Your task to perform on an android device: empty trash in the gmail app Image 0: 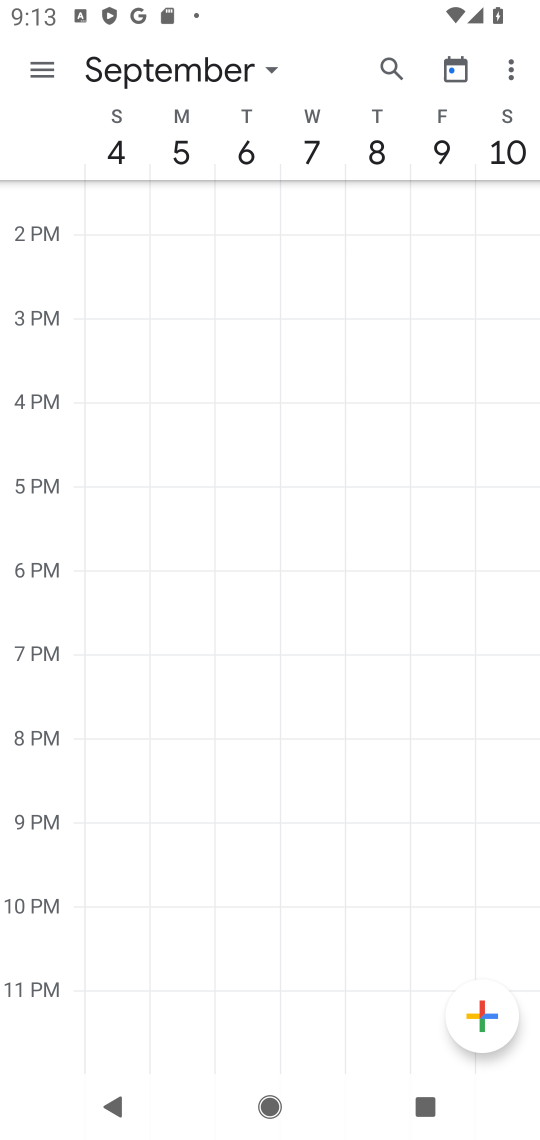
Step 0: press home button
Your task to perform on an android device: empty trash in the gmail app Image 1: 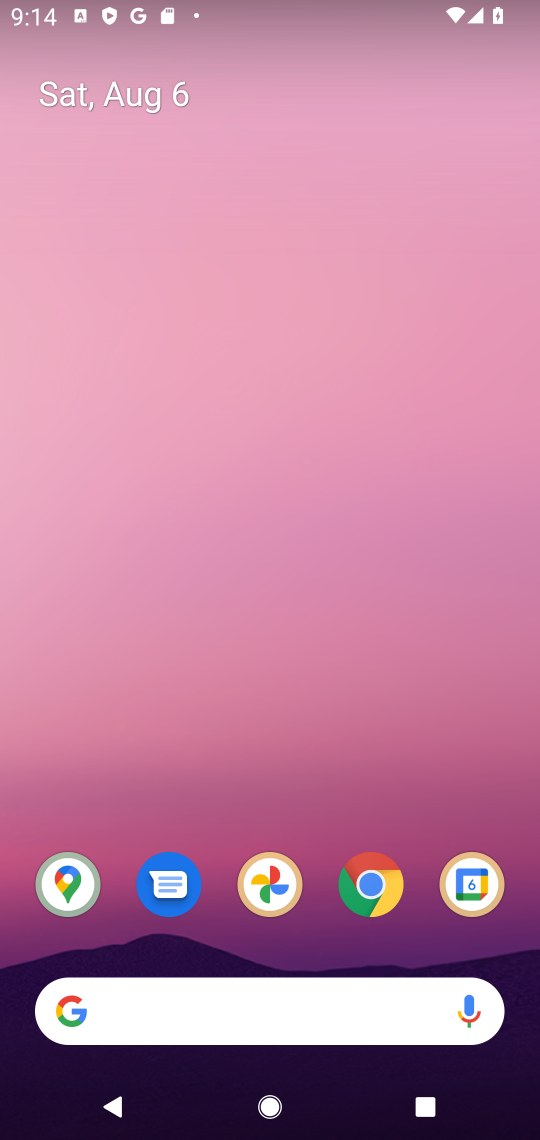
Step 1: drag from (415, 948) to (375, 194)
Your task to perform on an android device: empty trash in the gmail app Image 2: 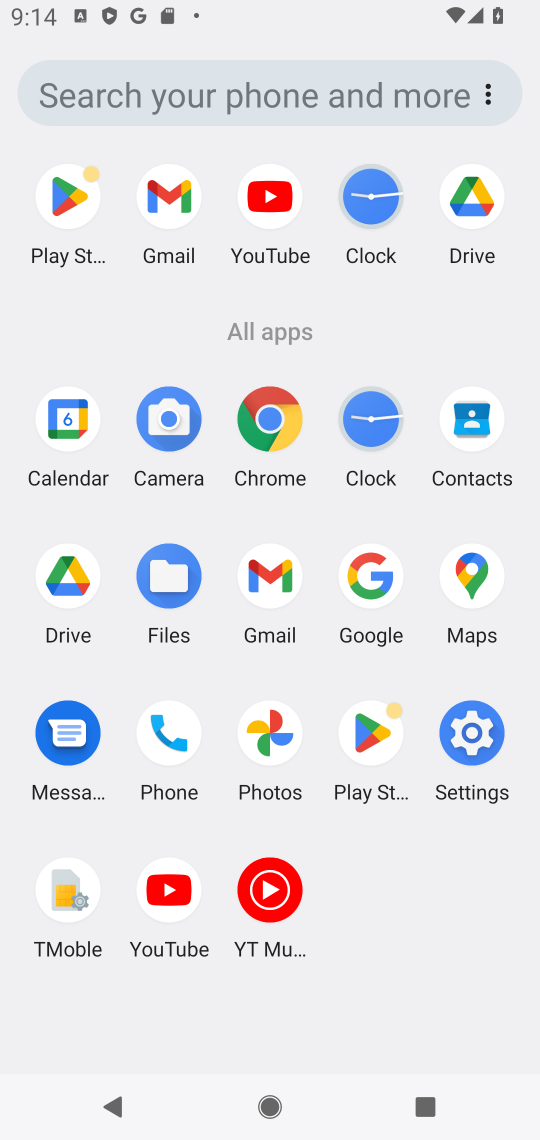
Step 2: click (270, 581)
Your task to perform on an android device: empty trash in the gmail app Image 3: 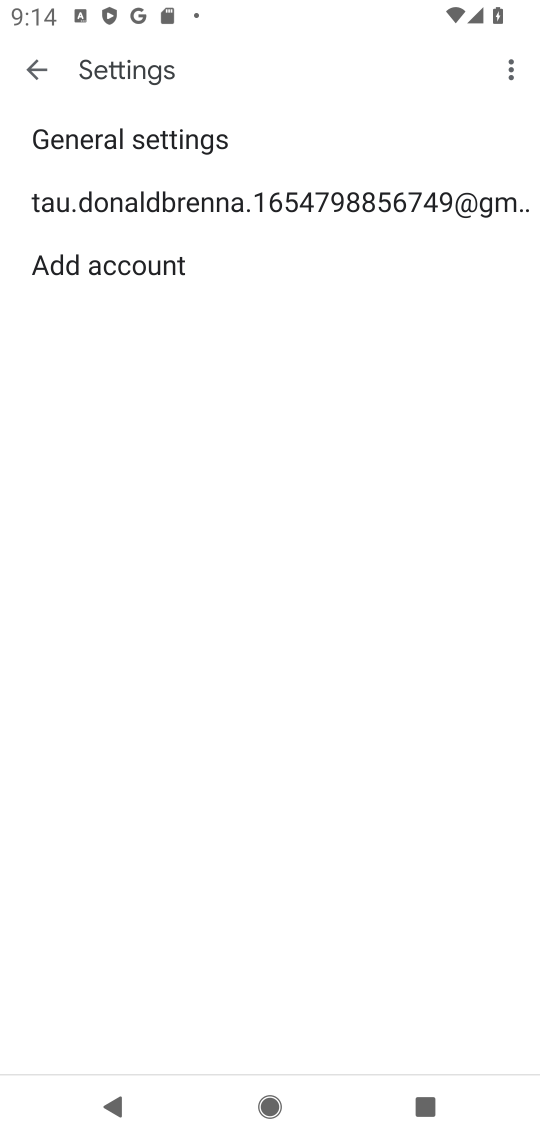
Step 3: press back button
Your task to perform on an android device: empty trash in the gmail app Image 4: 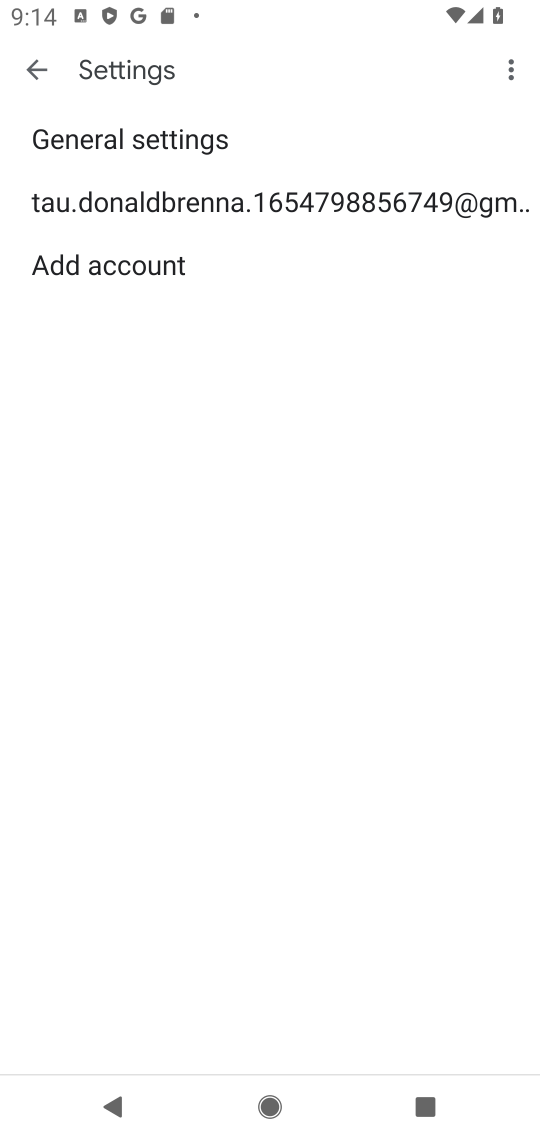
Step 4: press back button
Your task to perform on an android device: empty trash in the gmail app Image 5: 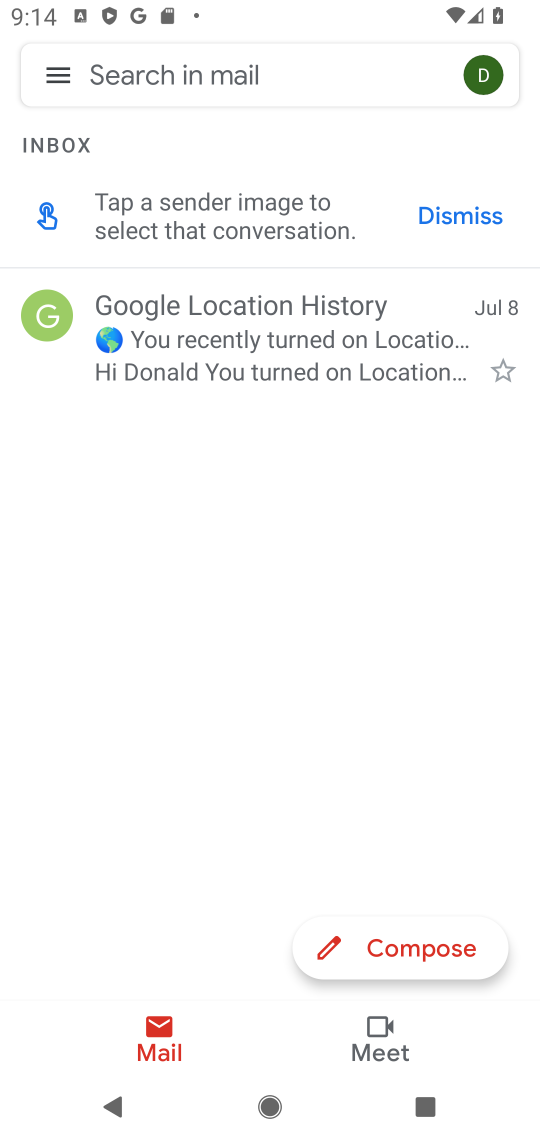
Step 5: click (54, 77)
Your task to perform on an android device: empty trash in the gmail app Image 6: 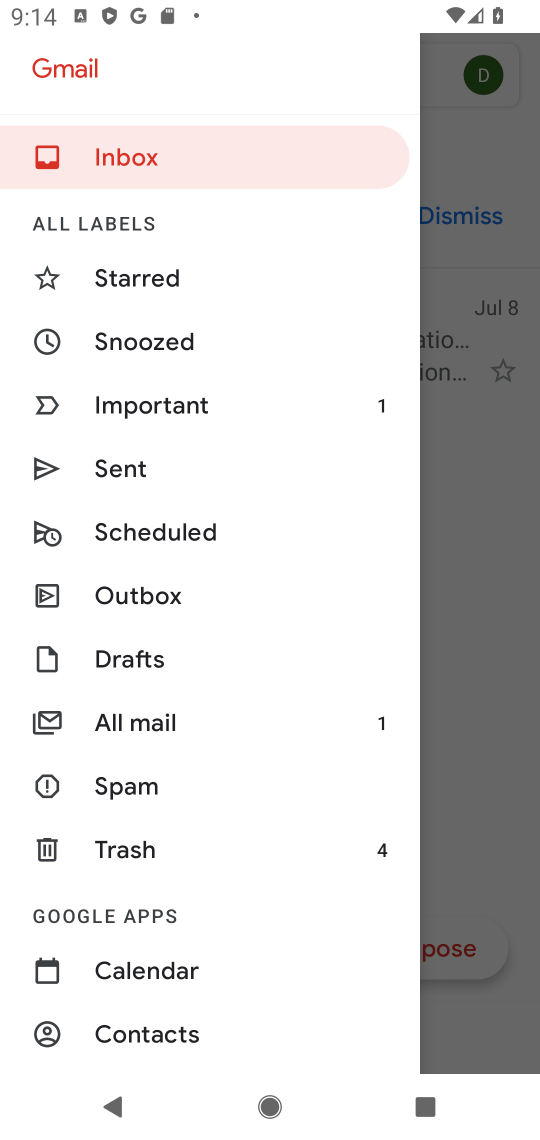
Step 6: click (130, 852)
Your task to perform on an android device: empty trash in the gmail app Image 7: 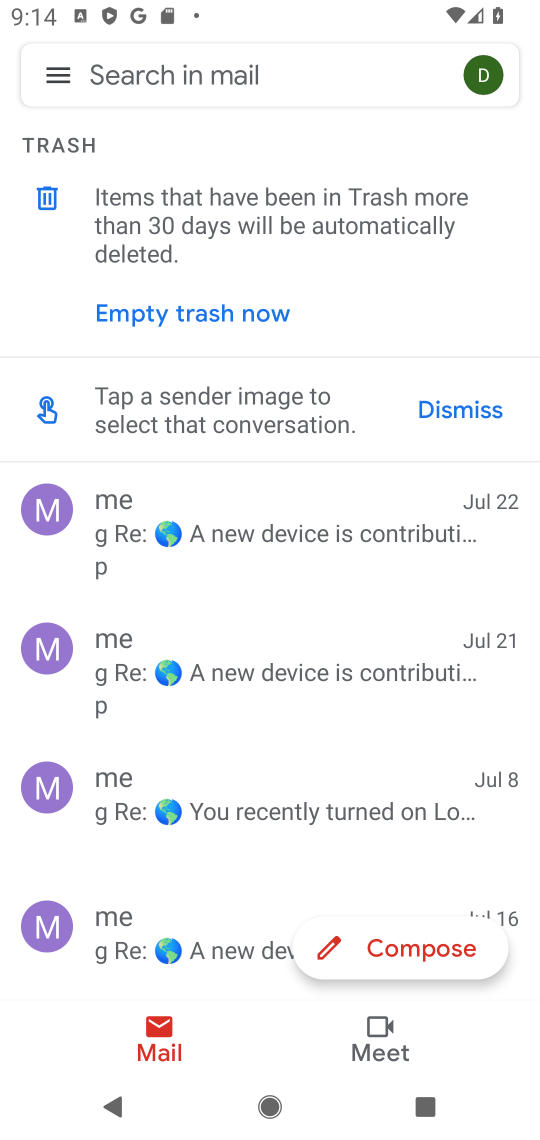
Step 7: click (171, 311)
Your task to perform on an android device: empty trash in the gmail app Image 8: 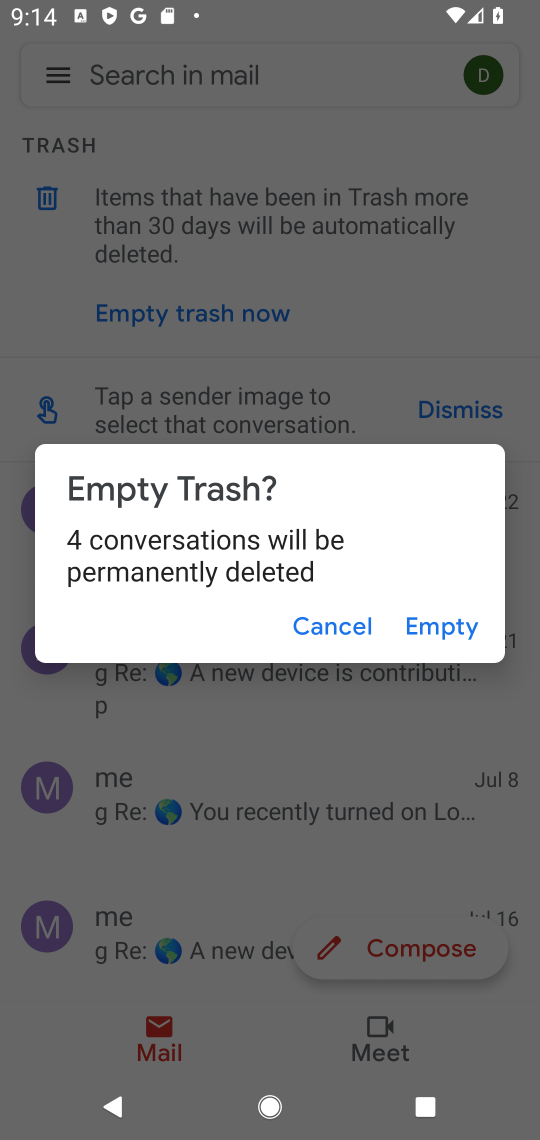
Step 8: click (437, 624)
Your task to perform on an android device: empty trash in the gmail app Image 9: 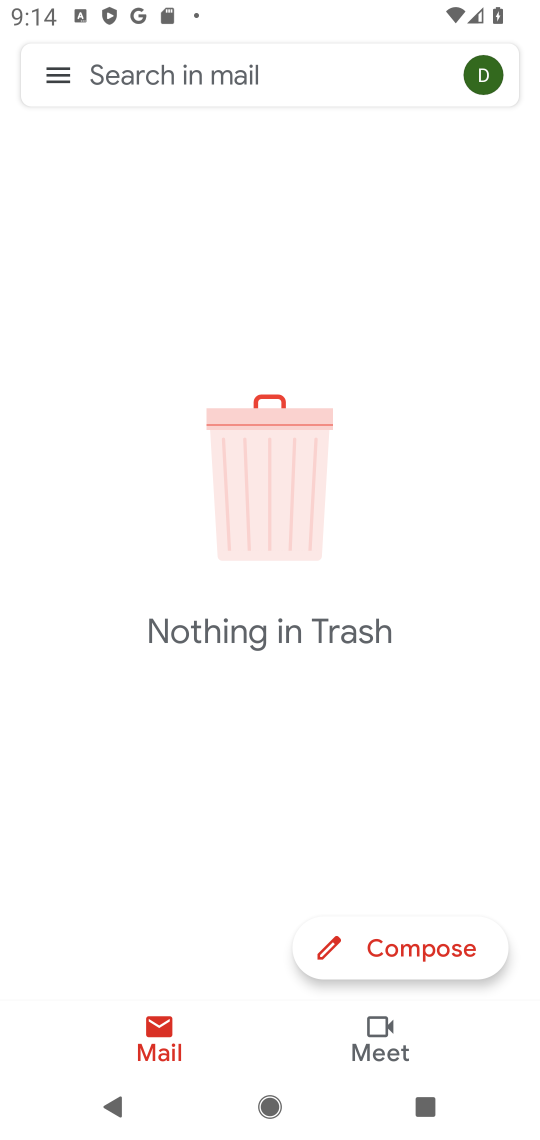
Step 9: task complete